Your task to perform on an android device: Add usb-b to the cart on target Image 0: 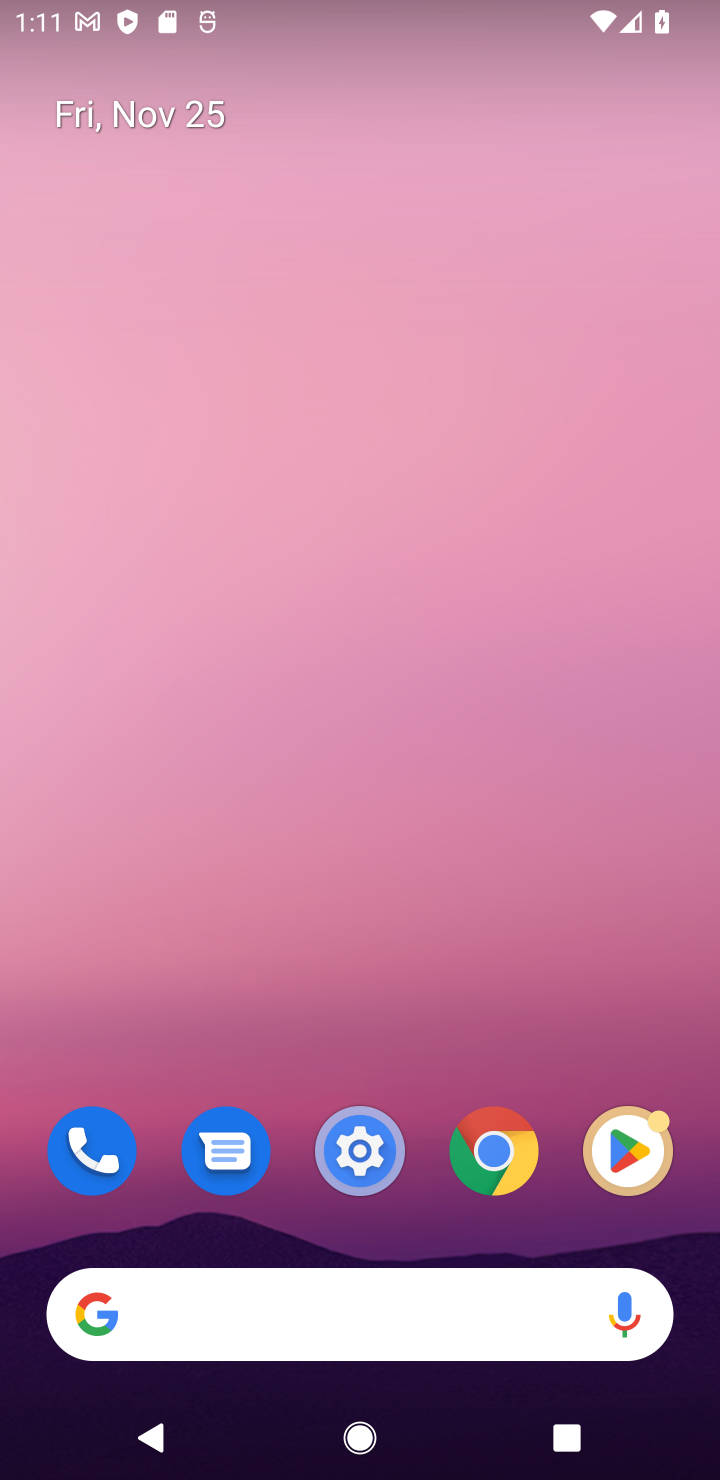
Step 0: click (519, 1309)
Your task to perform on an android device: Add usb-b to the cart on target Image 1: 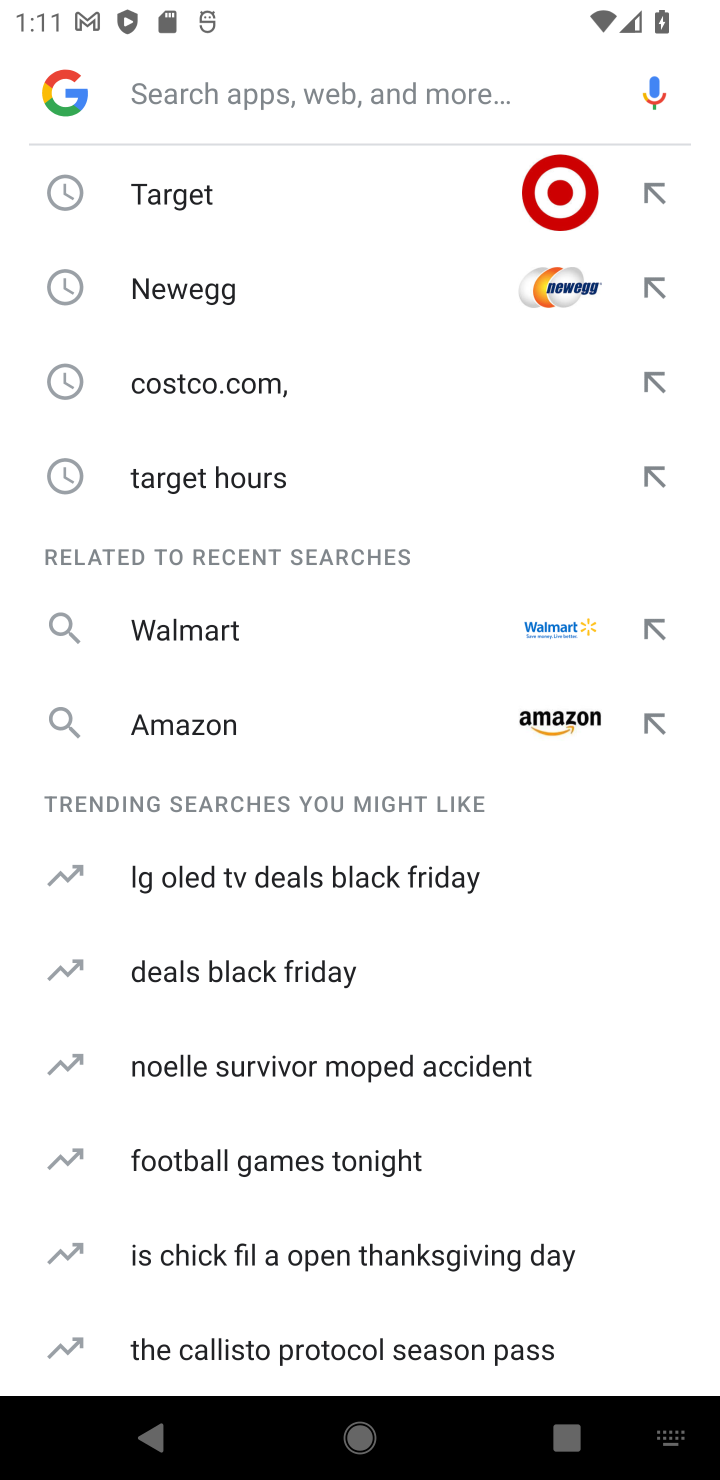
Step 1: type "target "
Your task to perform on an android device: Add usb-b to the cart on target Image 2: 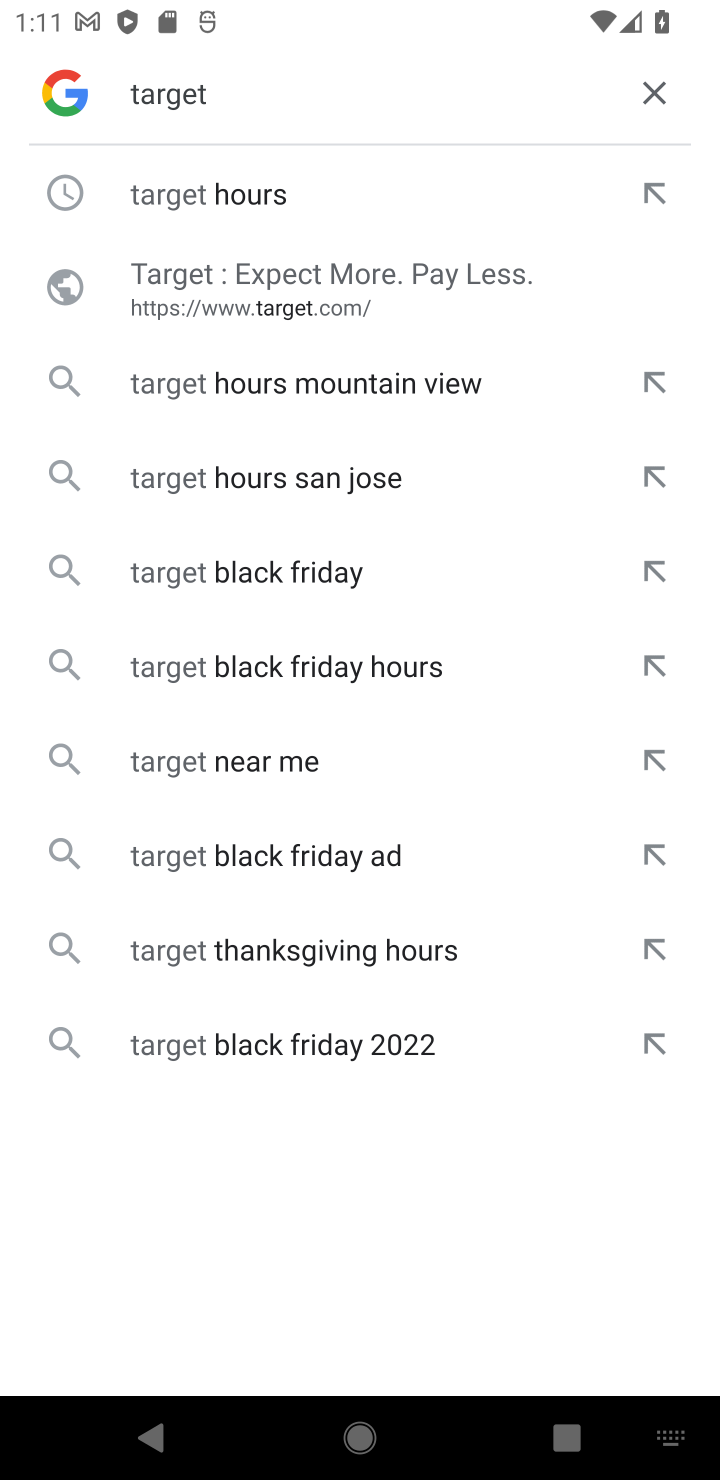
Step 2: click (307, 279)
Your task to perform on an android device: Add usb-b to the cart on target Image 3: 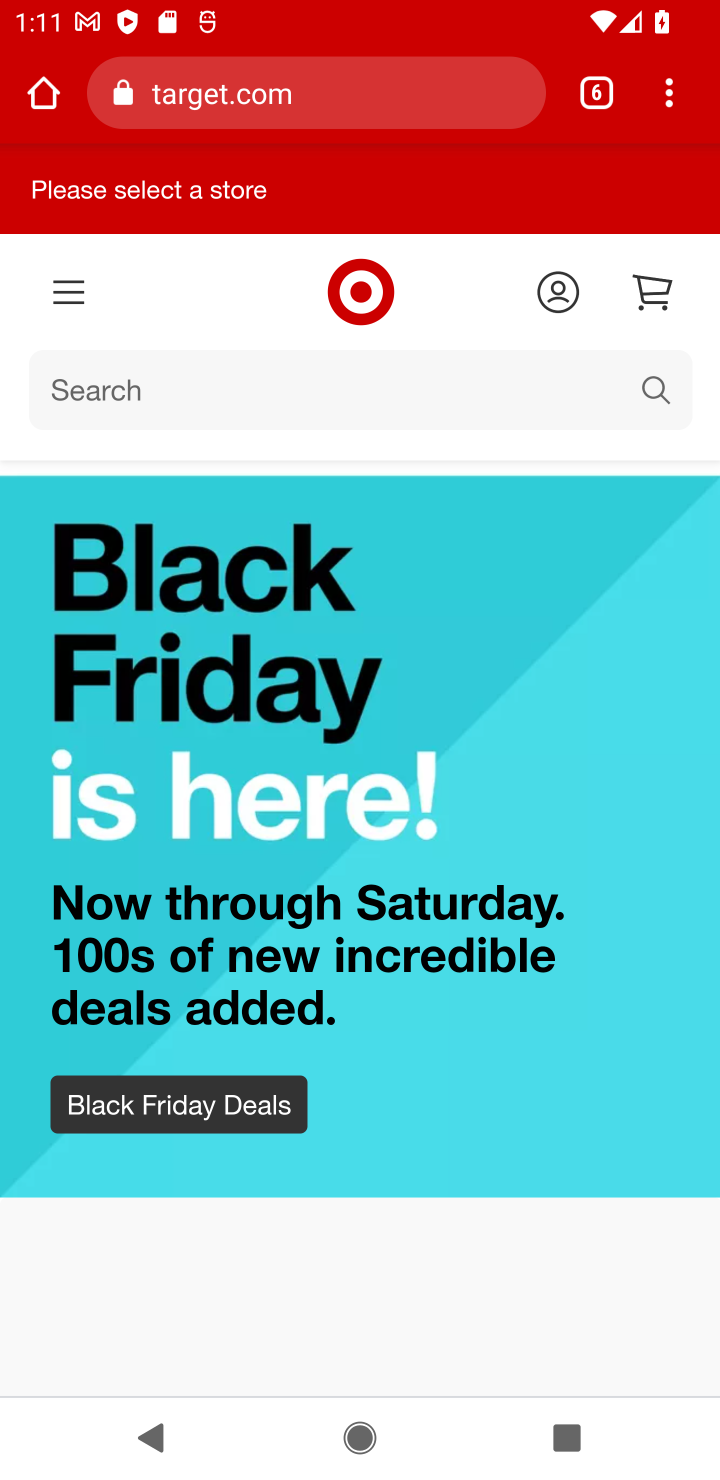
Step 3: click (241, 407)
Your task to perform on an android device: Add usb-b to the cart on target Image 4: 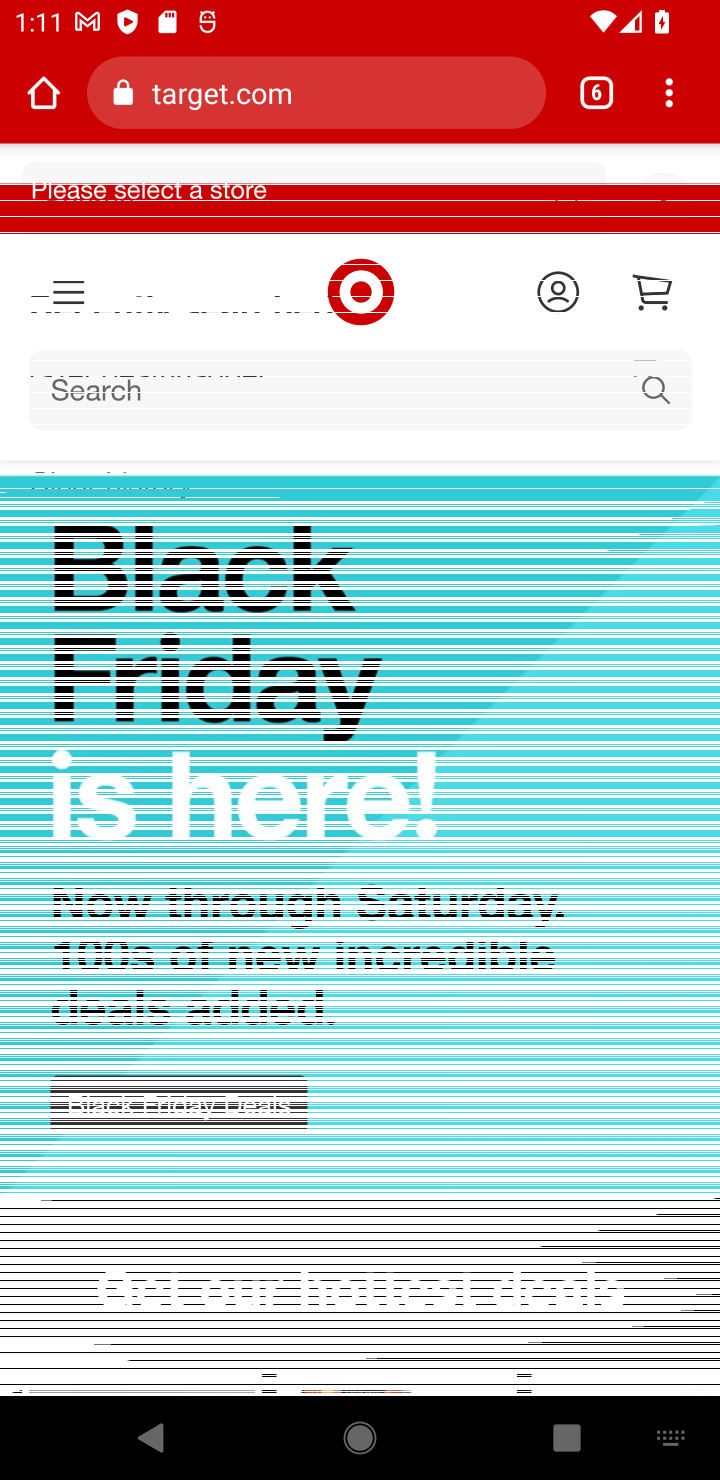
Step 4: type "usb-b"
Your task to perform on an android device: Add usb-b to the cart on target Image 5: 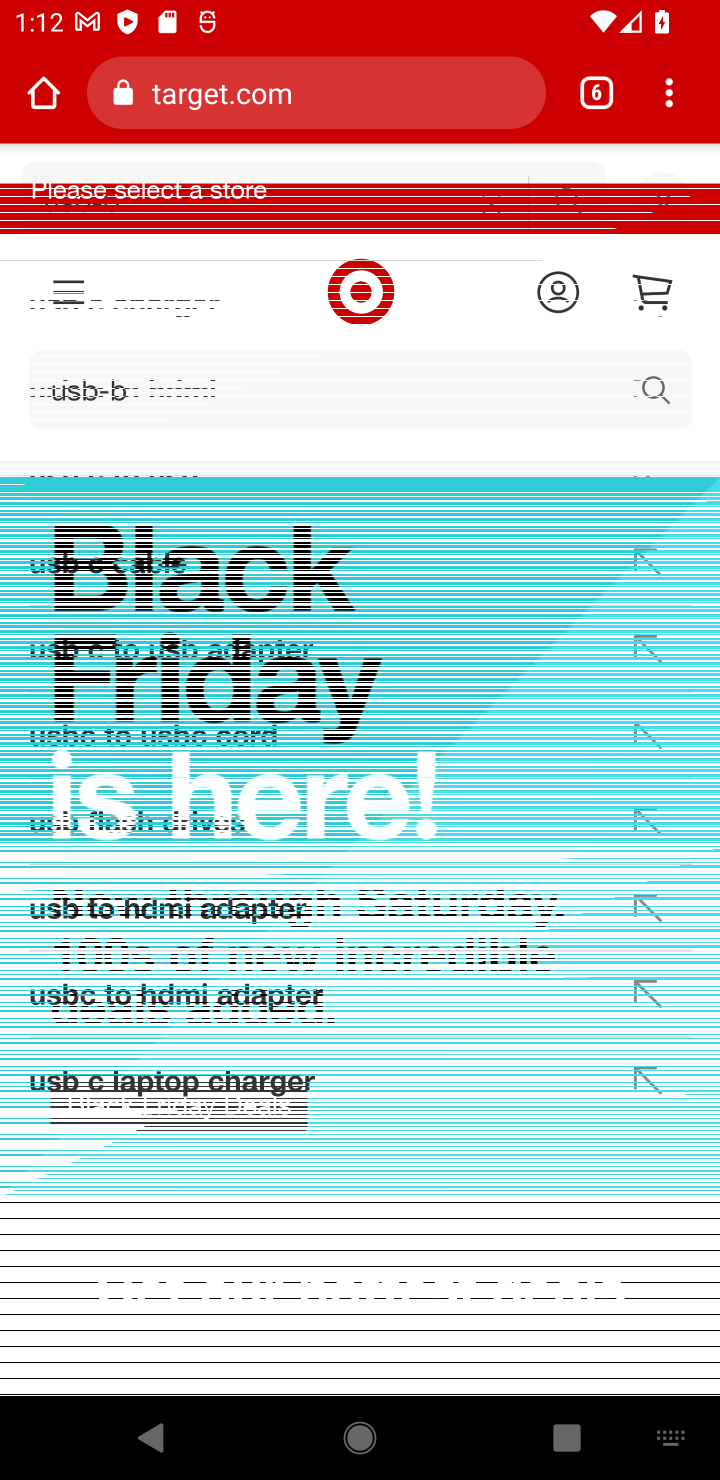
Step 5: task complete